Your task to perform on an android device: change timer sound Image 0: 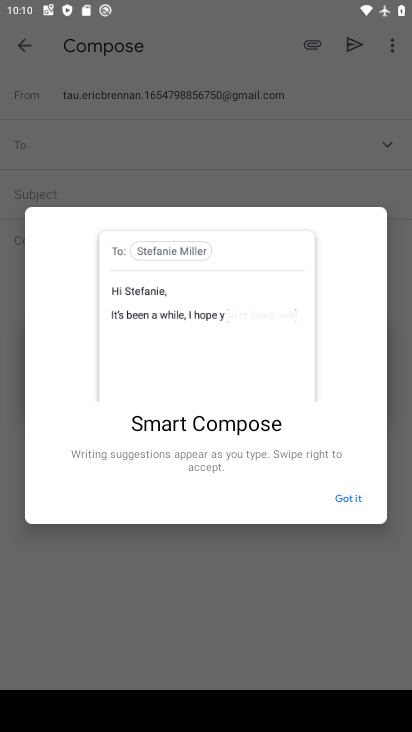
Step 0: press home button
Your task to perform on an android device: change timer sound Image 1: 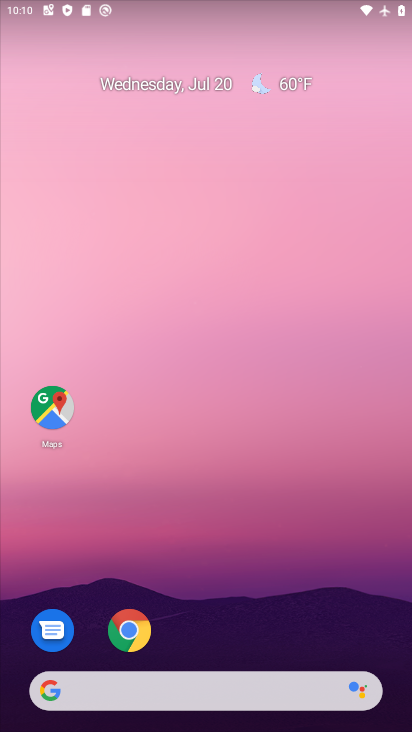
Step 1: drag from (201, 627) to (199, 202)
Your task to perform on an android device: change timer sound Image 2: 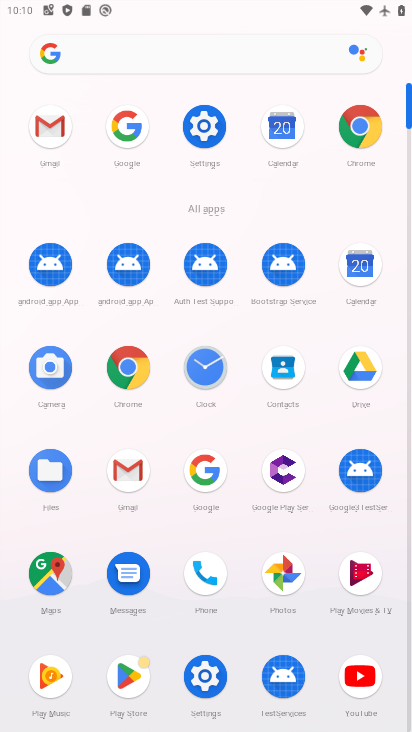
Step 2: click (212, 368)
Your task to perform on an android device: change timer sound Image 3: 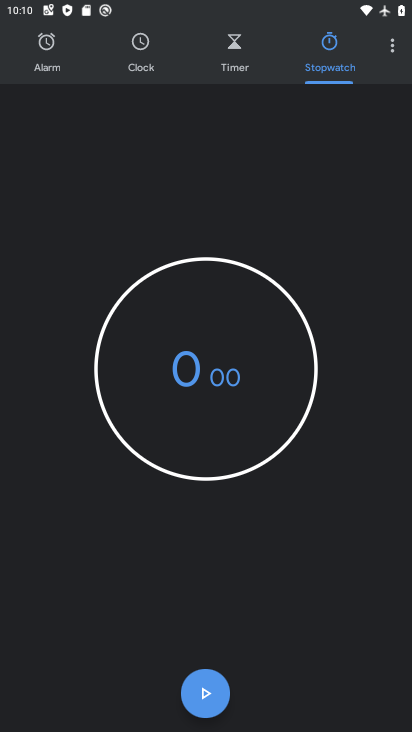
Step 3: click (390, 51)
Your task to perform on an android device: change timer sound Image 4: 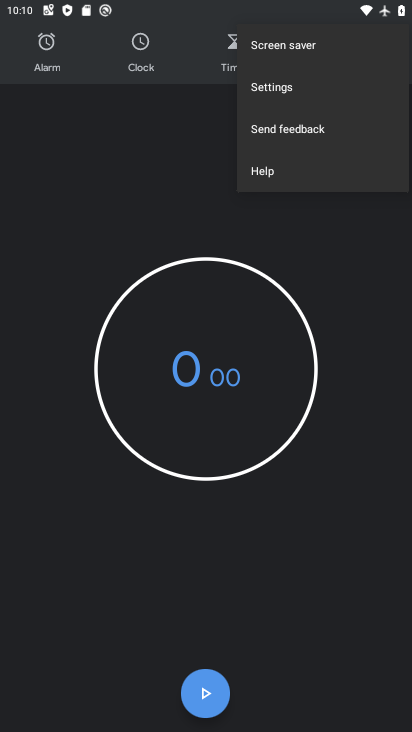
Step 4: click (286, 97)
Your task to perform on an android device: change timer sound Image 5: 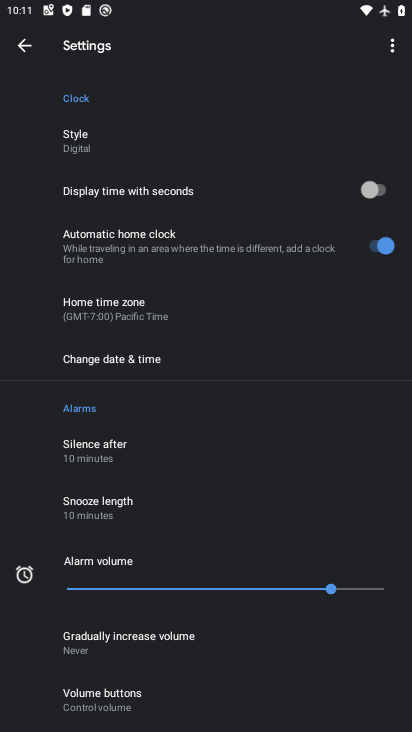
Step 5: drag from (144, 681) to (138, 366)
Your task to perform on an android device: change timer sound Image 6: 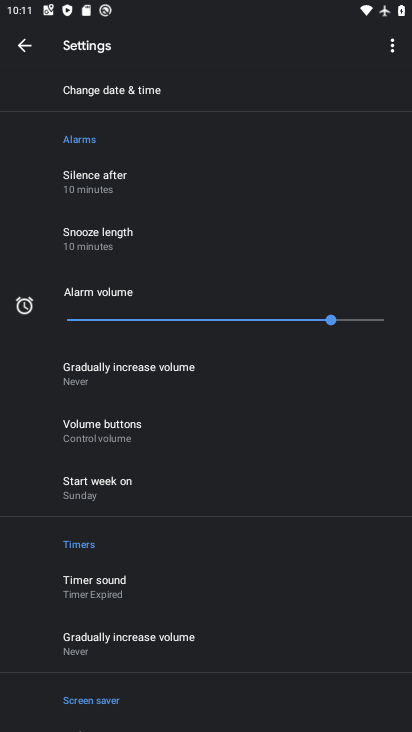
Step 6: click (104, 592)
Your task to perform on an android device: change timer sound Image 7: 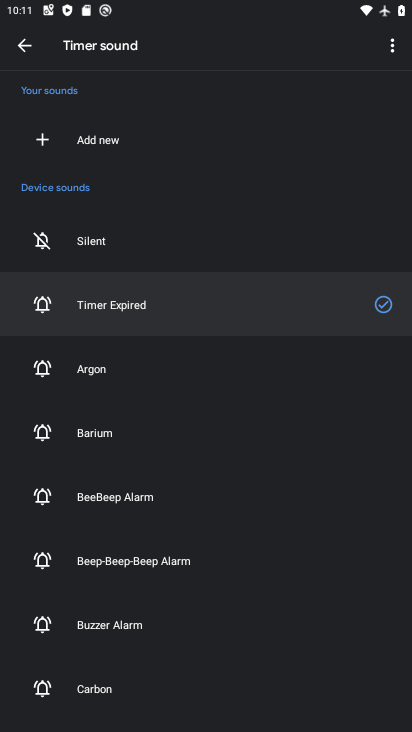
Step 7: click (80, 238)
Your task to perform on an android device: change timer sound Image 8: 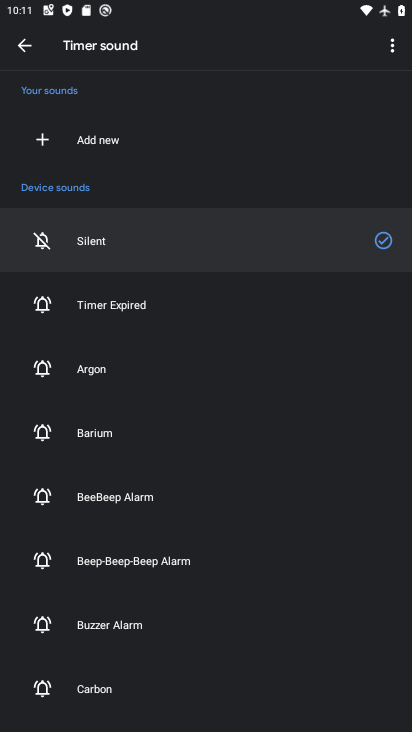
Step 8: click (90, 375)
Your task to perform on an android device: change timer sound Image 9: 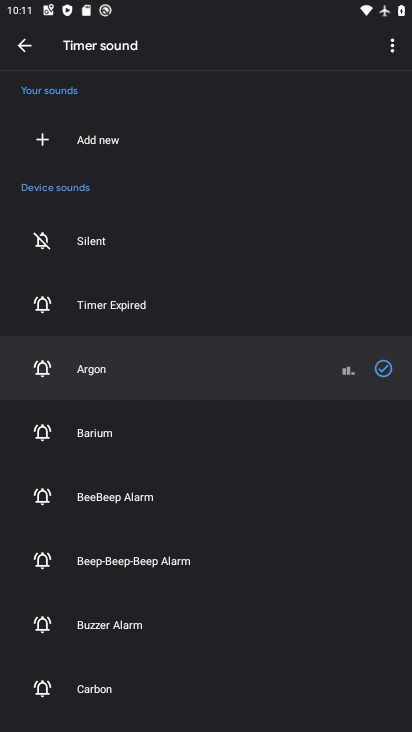
Step 9: task complete